Your task to perform on an android device: change alarm snooze length Image 0: 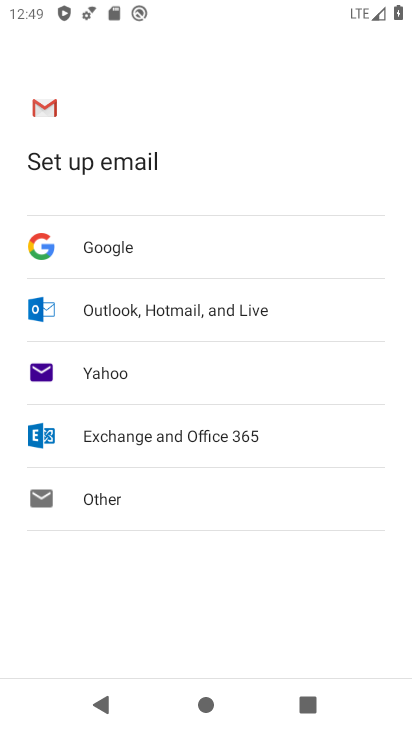
Step 0: press home button
Your task to perform on an android device: change alarm snooze length Image 1: 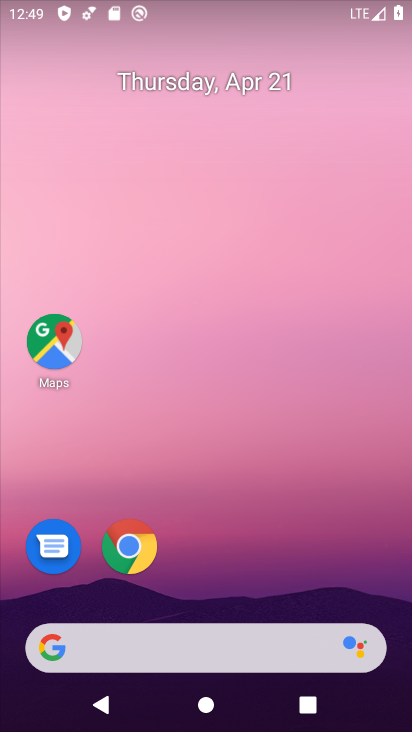
Step 1: drag from (235, 542) to (263, 132)
Your task to perform on an android device: change alarm snooze length Image 2: 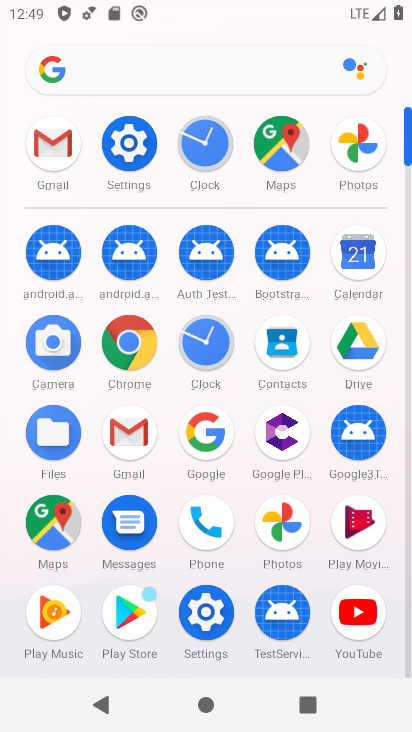
Step 2: click (194, 358)
Your task to perform on an android device: change alarm snooze length Image 3: 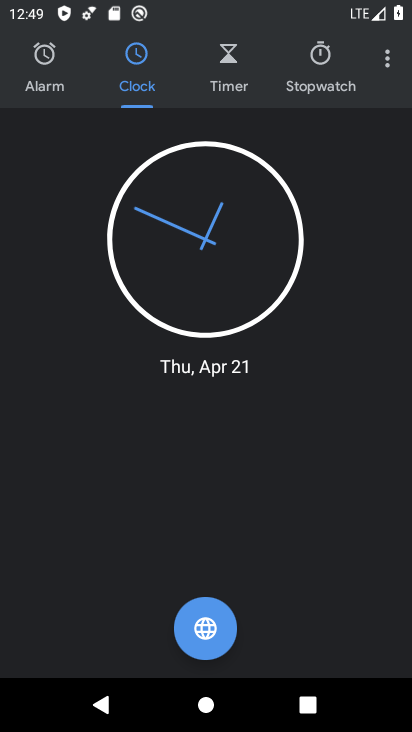
Step 3: click (381, 56)
Your task to perform on an android device: change alarm snooze length Image 4: 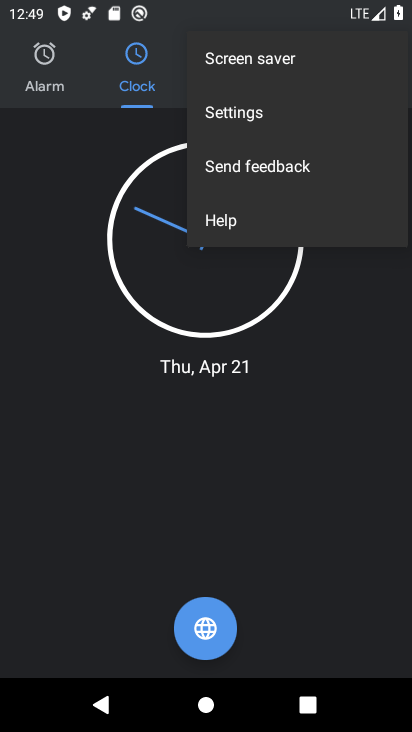
Step 4: click (289, 119)
Your task to perform on an android device: change alarm snooze length Image 5: 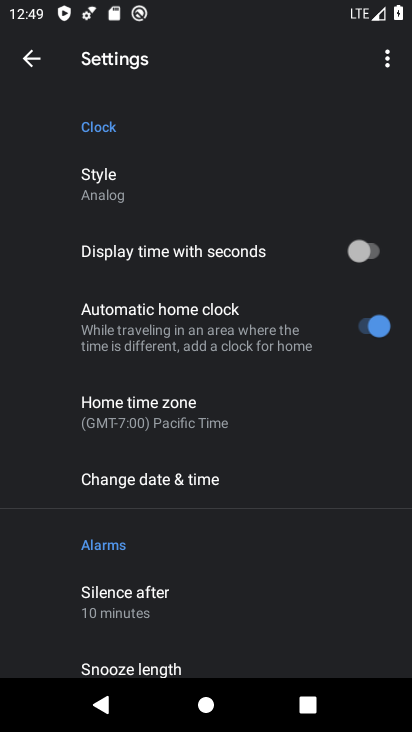
Step 5: drag from (228, 572) to (228, 330)
Your task to perform on an android device: change alarm snooze length Image 6: 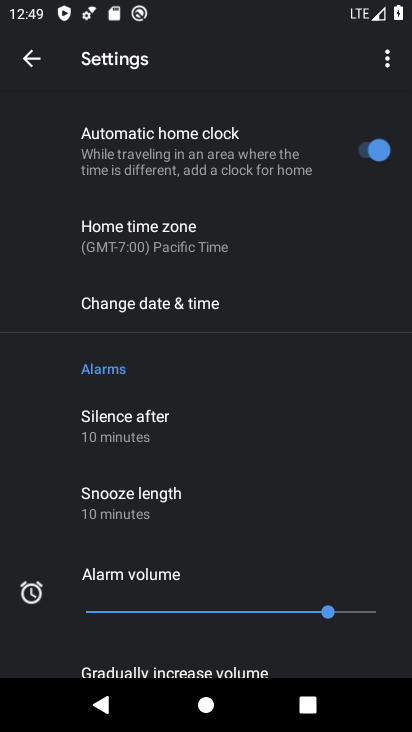
Step 6: click (189, 509)
Your task to perform on an android device: change alarm snooze length Image 7: 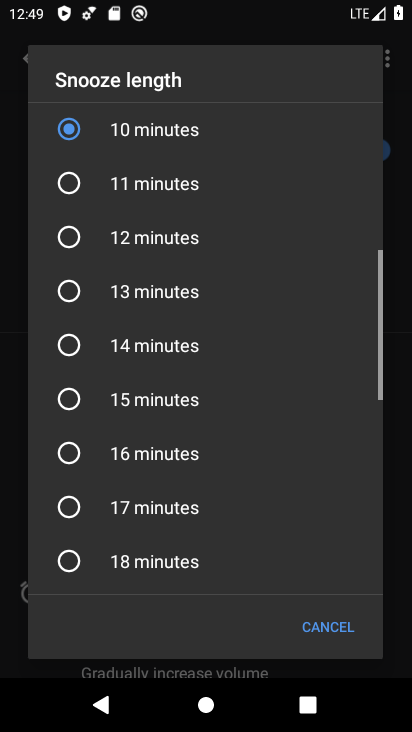
Step 7: click (135, 190)
Your task to perform on an android device: change alarm snooze length Image 8: 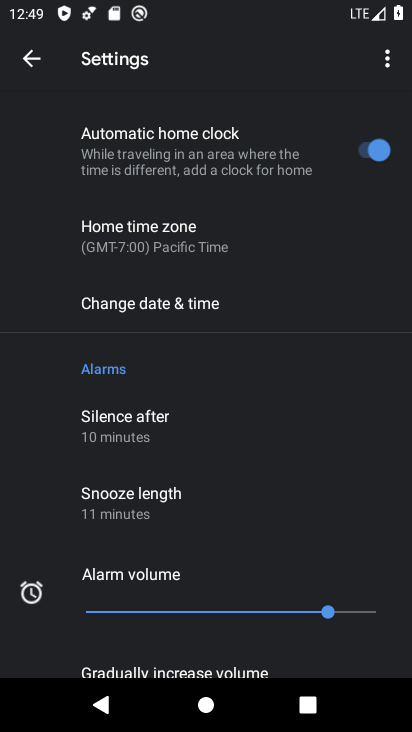
Step 8: task complete